Your task to perform on an android device: Search for "asus rog" on costco.com, select the first entry, add it to the cart, then select checkout. Image 0: 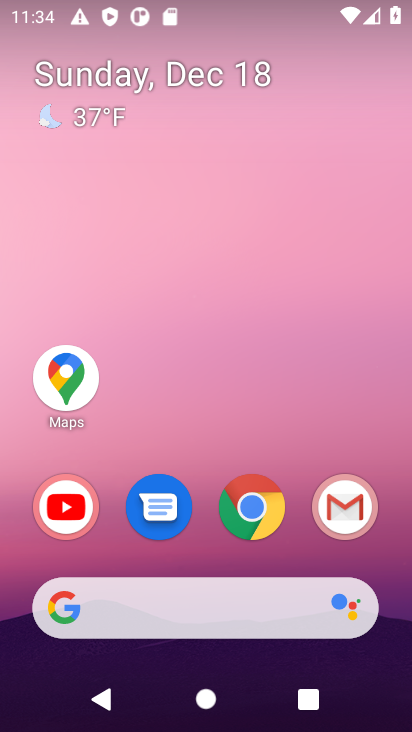
Step 0: click (261, 518)
Your task to perform on an android device: Search for "asus rog" on costco.com, select the first entry, add it to the cart, then select checkout. Image 1: 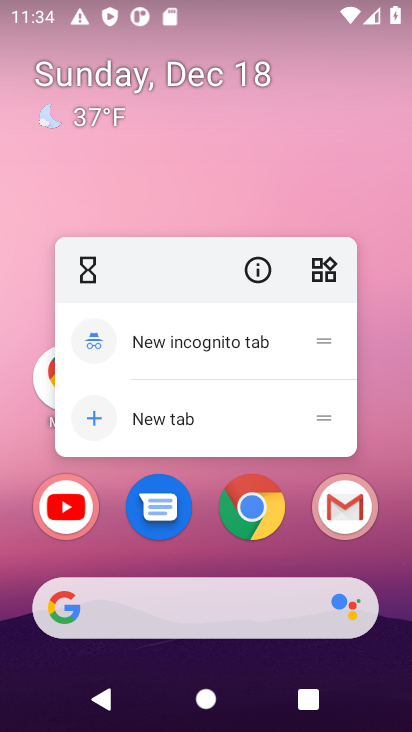
Step 1: click (256, 516)
Your task to perform on an android device: Search for "asus rog" on costco.com, select the first entry, add it to the cart, then select checkout. Image 2: 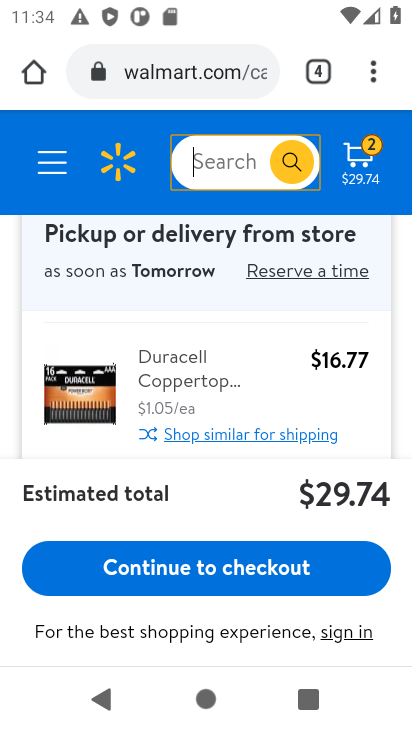
Step 2: click (163, 73)
Your task to perform on an android device: Search for "asus rog" on costco.com, select the first entry, add it to the cart, then select checkout. Image 3: 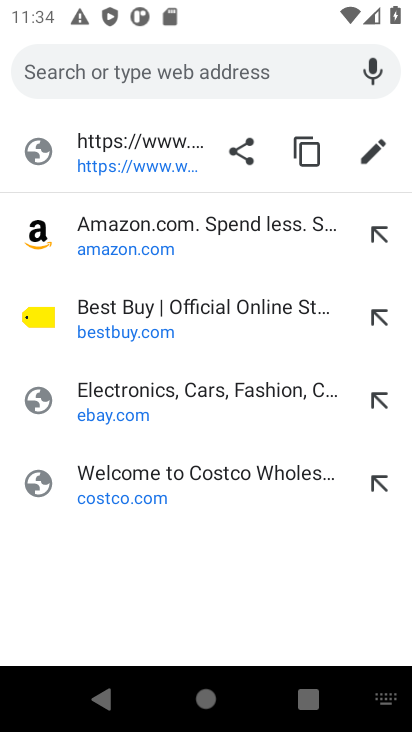
Step 3: click (105, 483)
Your task to perform on an android device: Search for "asus rog" on costco.com, select the first entry, add it to the cart, then select checkout. Image 4: 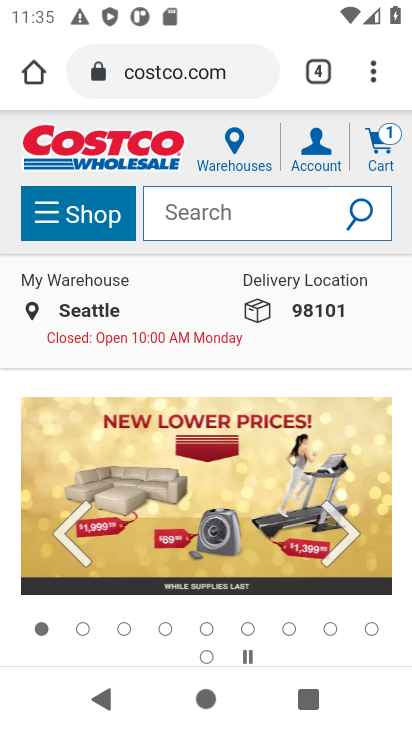
Step 4: click (196, 214)
Your task to perform on an android device: Search for "asus rog" on costco.com, select the first entry, add it to the cart, then select checkout. Image 5: 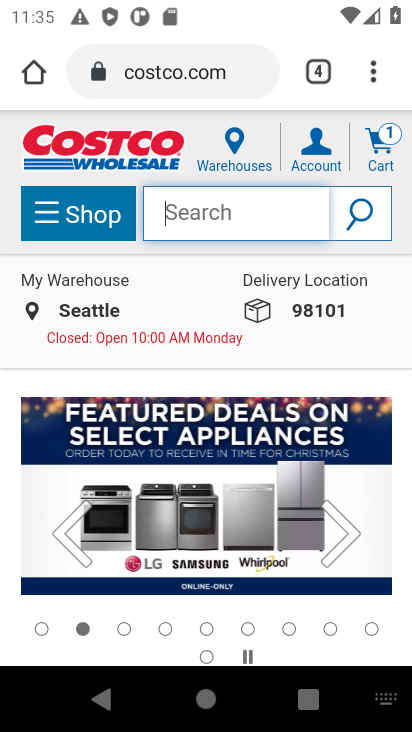
Step 5: type "asus rog"
Your task to perform on an android device: Search for "asus rog" on costco.com, select the first entry, add it to the cart, then select checkout. Image 6: 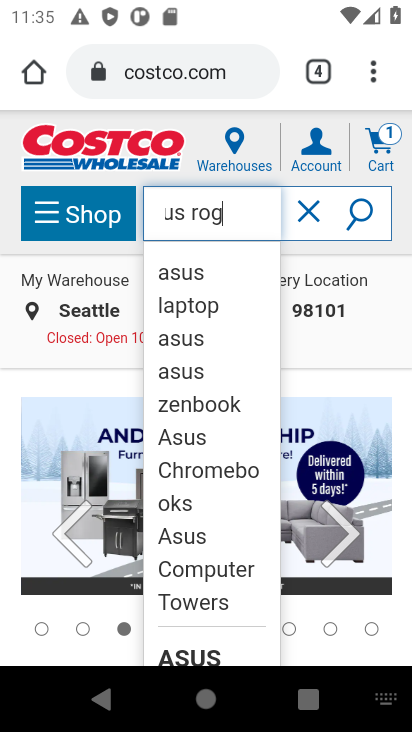
Step 6: click (364, 219)
Your task to perform on an android device: Search for "asus rog" on costco.com, select the first entry, add it to the cart, then select checkout. Image 7: 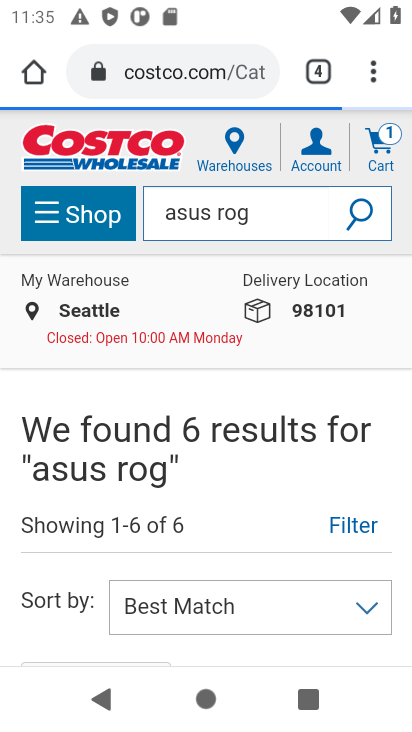
Step 7: drag from (210, 470) to (210, 206)
Your task to perform on an android device: Search for "asus rog" on costco.com, select the first entry, add it to the cart, then select checkout. Image 8: 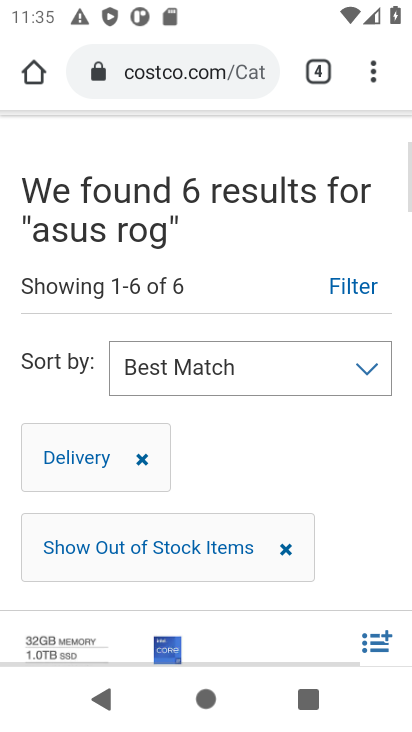
Step 8: drag from (204, 484) to (218, 148)
Your task to perform on an android device: Search for "asus rog" on costco.com, select the first entry, add it to the cart, then select checkout. Image 9: 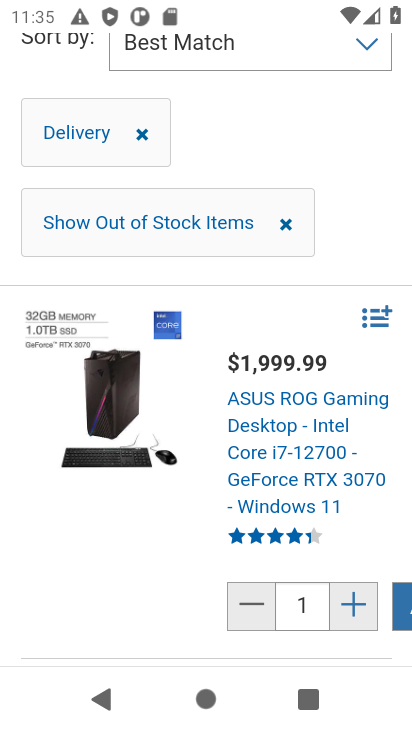
Step 9: drag from (185, 511) to (130, 498)
Your task to perform on an android device: Search for "asus rog" on costco.com, select the first entry, add it to the cart, then select checkout. Image 10: 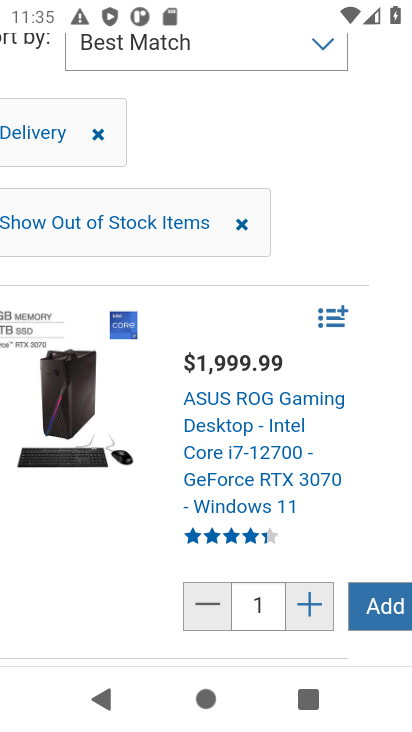
Step 10: click (379, 603)
Your task to perform on an android device: Search for "asus rog" on costco.com, select the first entry, add it to the cart, then select checkout. Image 11: 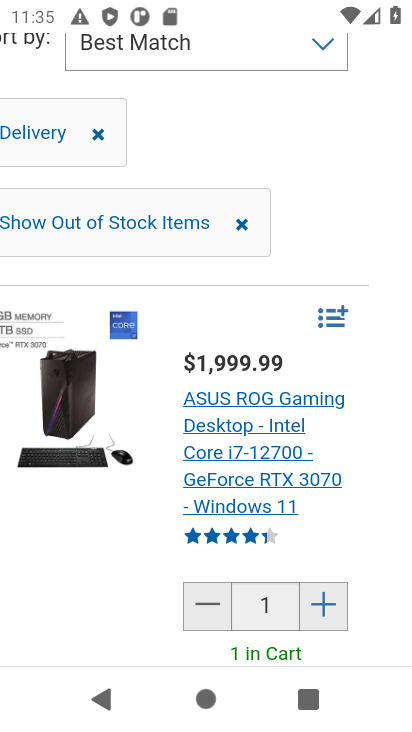
Step 11: drag from (248, 160) to (203, 564)
Your task to perform on an android device: Search for "asus rog" on costco.com, select the first entry, add it to the cart, then select checkout. Image 12: 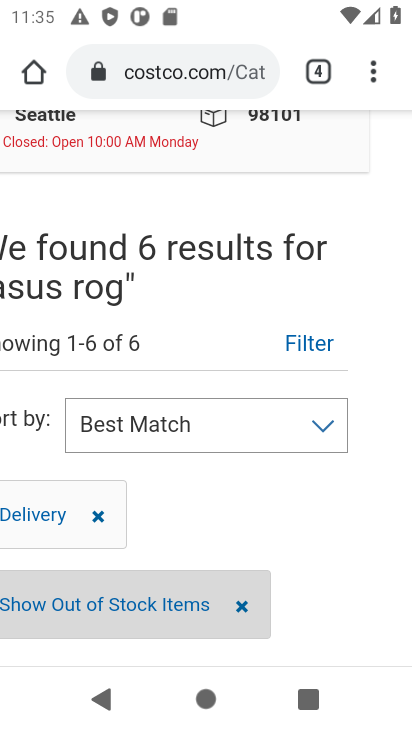
Step 12: drag from (318, 137) to (266, 399)
Your task to perform on an android device: Search for "asus rog" on costco.com, select the first entry, add it to the cart, then select checkout. Image 13: 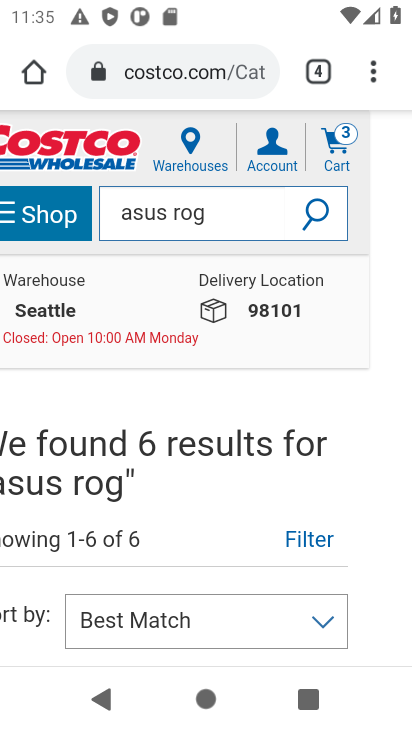
Step 13: click (328, 153)
Your task to perform on an android device: Search for "asus rog" on costco.com, select the first entry, add it to the cart, then select checkout. Image 14: 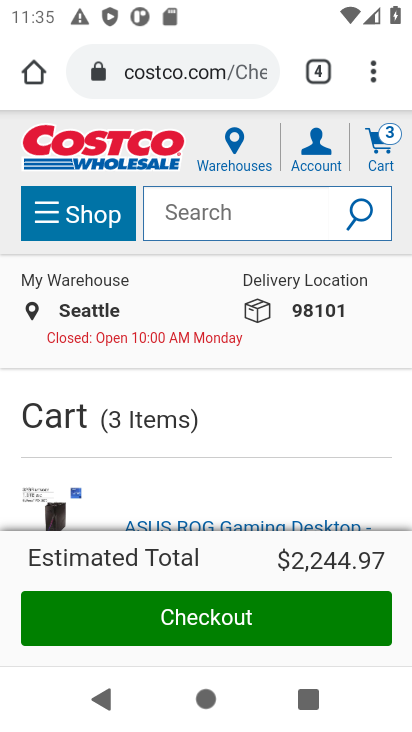
Step 14: click (187, 610)
Your task to perform on an android device: Search for "asus rog" on costco.com, select the first entry, add it to the cart, then select checkout. Image 15: 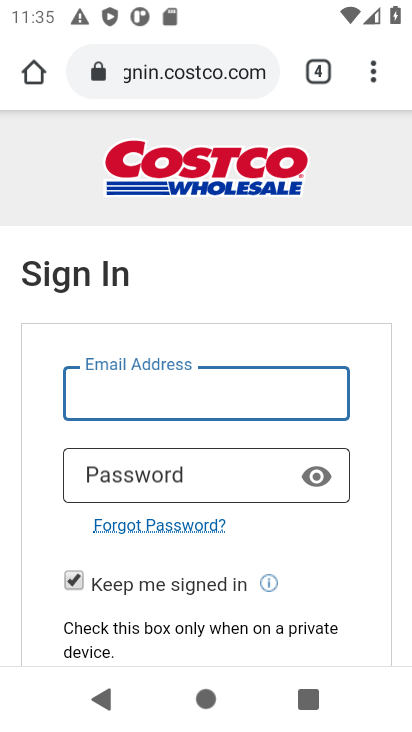
Step 15: task complete